Your task to perform on an android device: set default search engine in the chrome app Image 0: 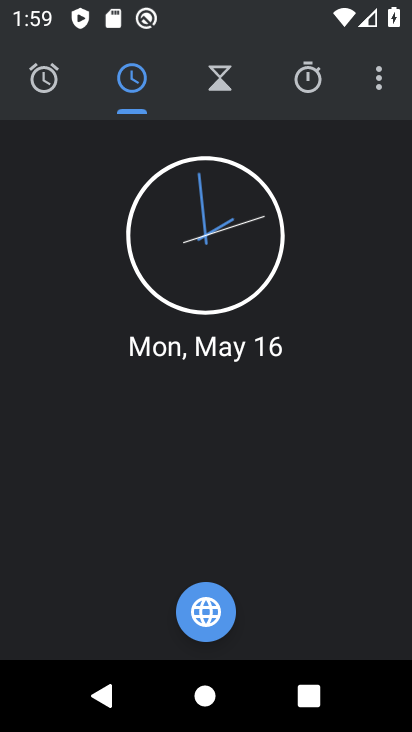
Step 0: press home button
Your task to perform on an android device: set default search engine in the chrome app Image 1: 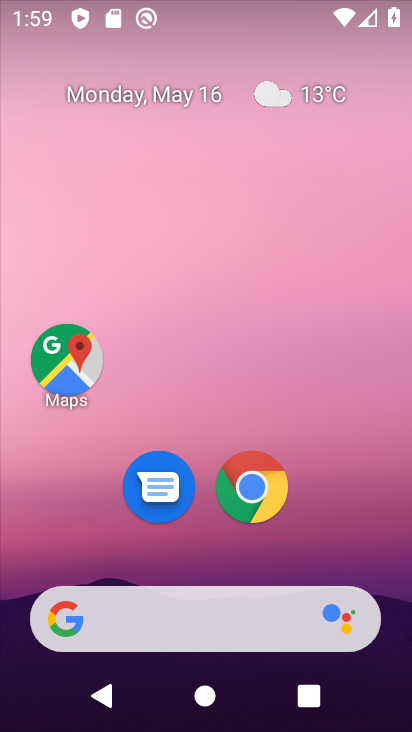
Step 1: click (261, 499)
Your task to perform on an android device: set default search engine in the chrome app Image 2: 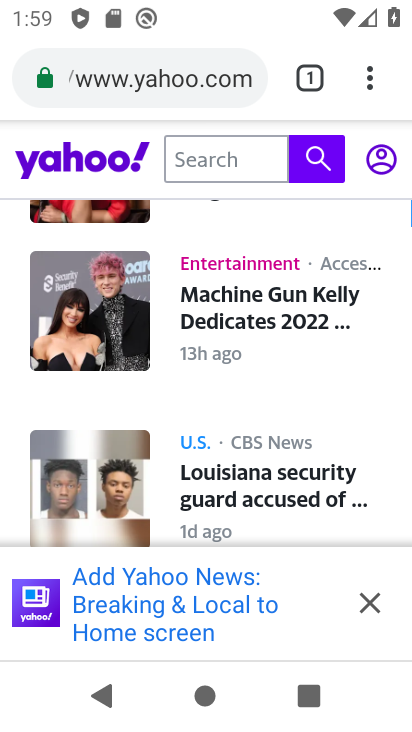
Step 2: click (372, 84)
Your task to perform on an android device: set default search engine in the chrome app Image 3: 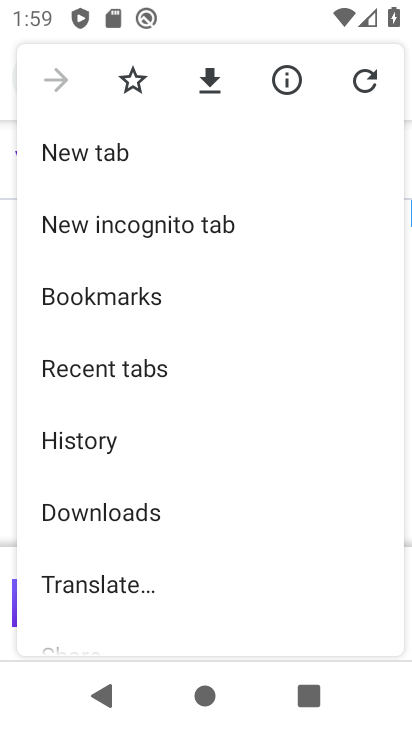
Step 3: drag from (104, 509) to (79, 176)
Your task to perform on an android device: set default search engine in the chrome app Image 4: 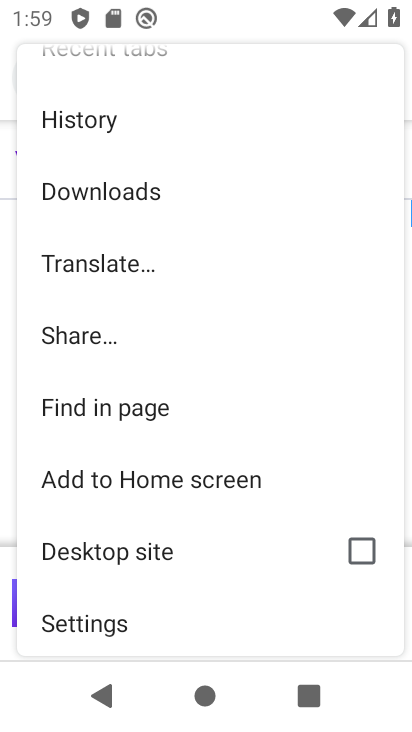
Step 4: click (84, 621)
Your task to perform on an android device: set default search engine in the chrome app Image 5: 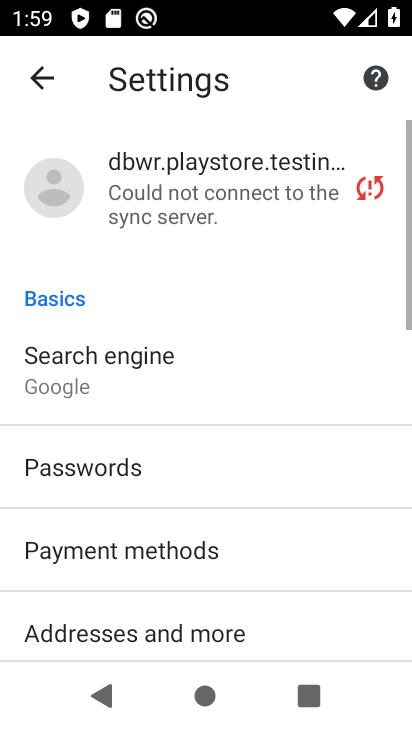
Step 5: drag from (84, 621) to (85, 276)
Your task to perform on an android device: set default search engine in the chrome app Image 6: 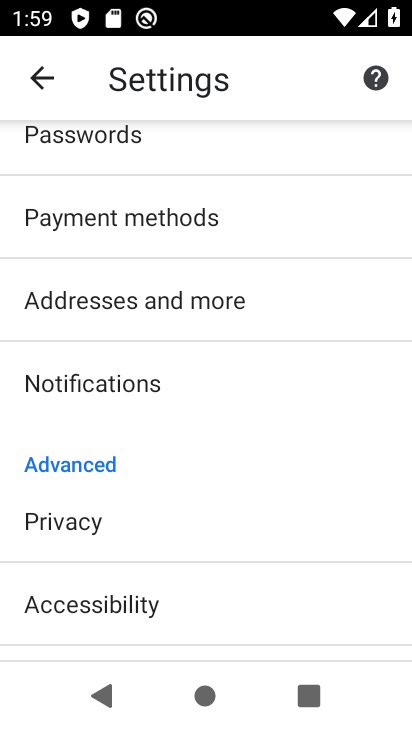
Step 6: drag from (207, 193) to (209, 398)
Your task to perform on an android device: set default search engine in the chrome app Image 7: 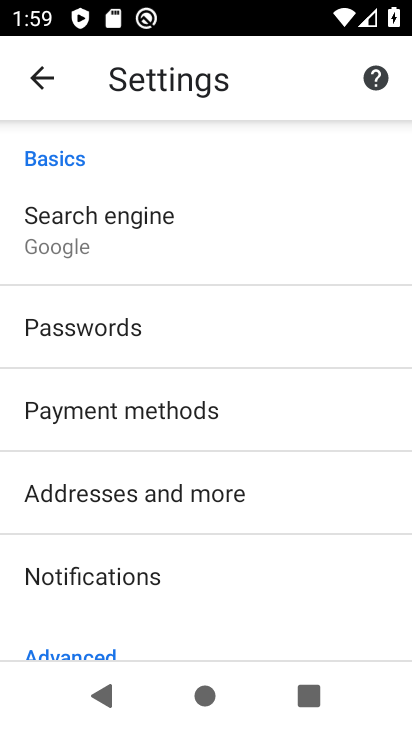
Step 7: drag from (175, 612) to (183, 446)
Your task to perform on an android device: set default search engine in the chrome app Image 8: 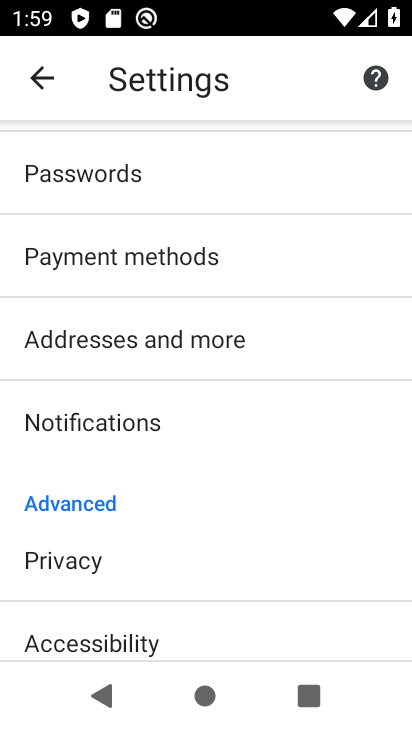
Step 8: drag from (162, 567) to (165, 412)
Your task to perform on an android device: set default search engine in the chrome app Image 9: 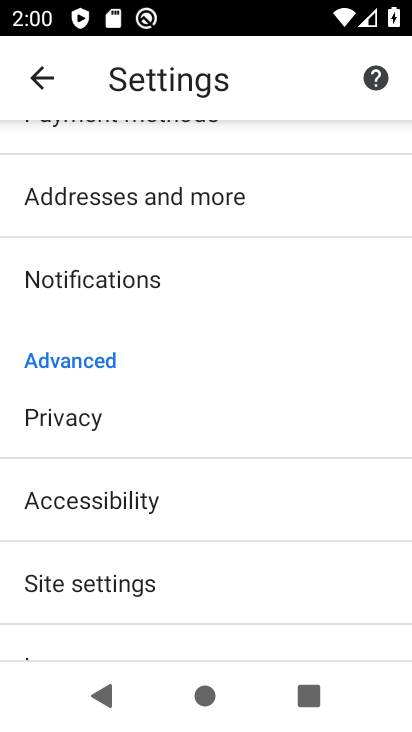
Step 9: drag from (209, 309) to (156, 652)
Your task to perform on an android device: set default search engine in the chrome app Image 10: 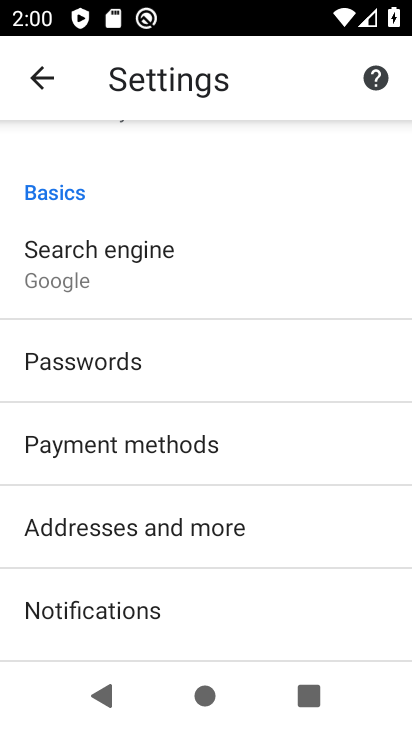
Step 10: click (79, 284)
Your task to perform on an android device: set default search engine in the chrome app Image 11: 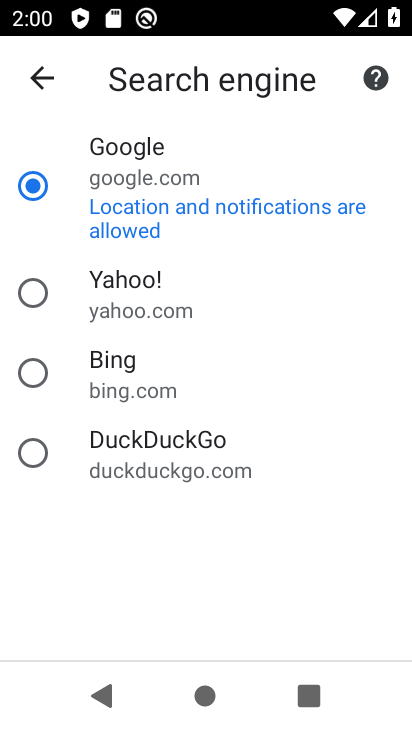
Step 11: click (37, 456)
Your task to perform on an android device: set default search engine in the chrome app Image 12: 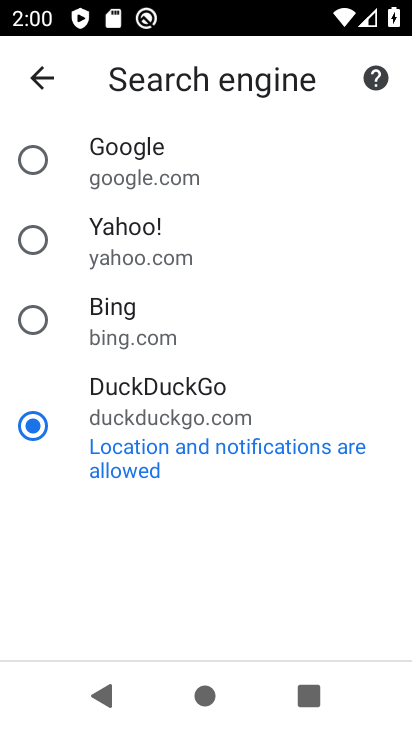
Step 12: task complete